Your task to perform on an android device: Open Maps and search for coffee Image 0: 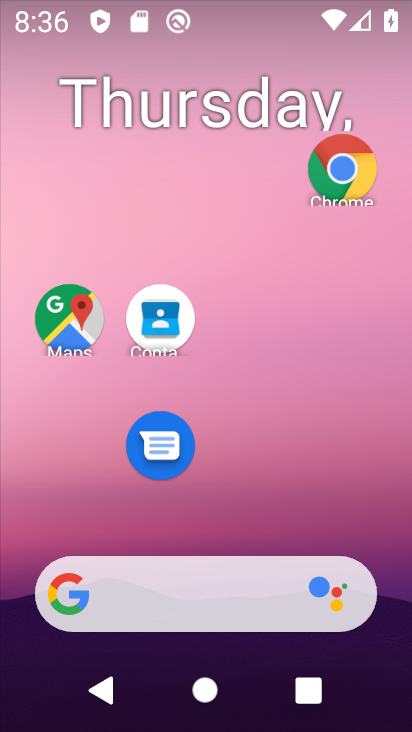
Step 0: drag from (278, 637) to (337, 118)
Your task to perform on an android device: Open Maps and search for coffee Image 1: 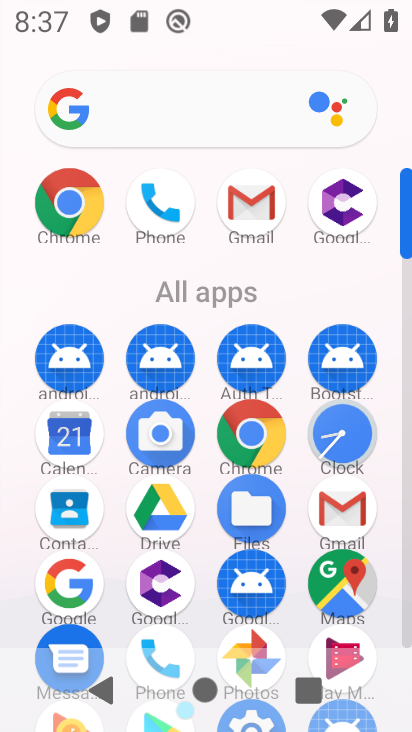
Step 1: click (329, 573)
Your task to perform on an android device: Open Maps and search for coffee Image 2: 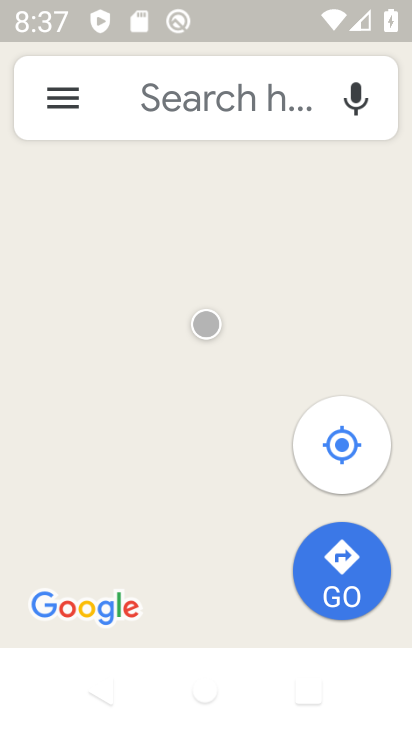
Step 2: click (245, 119)
Your task to perform on an android device: Open Maps and search for coffee Image 3: 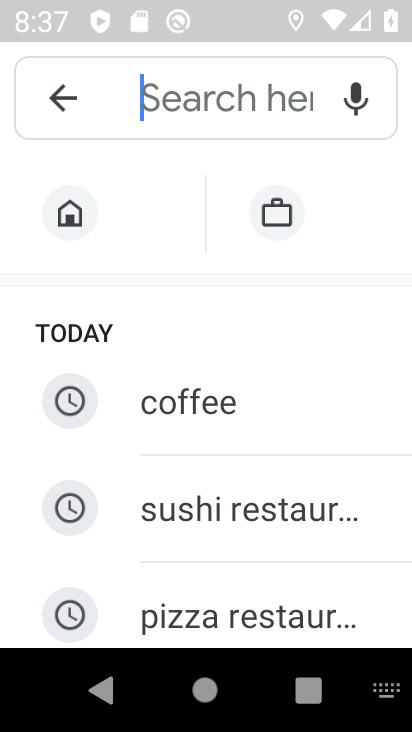
Step 3: click (161, 427)
Your task to perform on an android device: Open Maps and search for coffee Image 4: 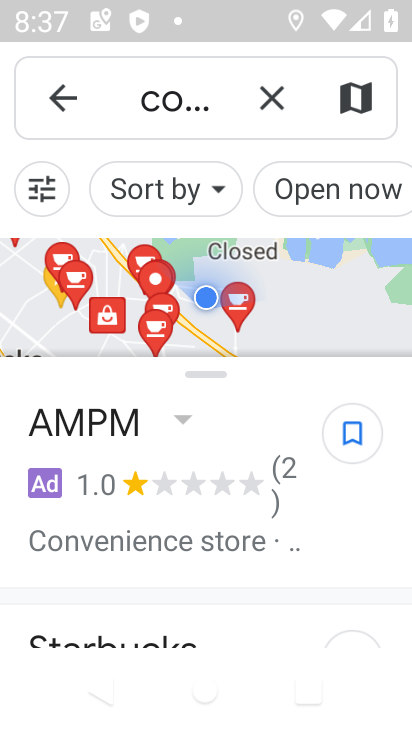
Step 4: click (210, 266)
Your task to perform on an android device: Open Maps and search for coffee Image 5: 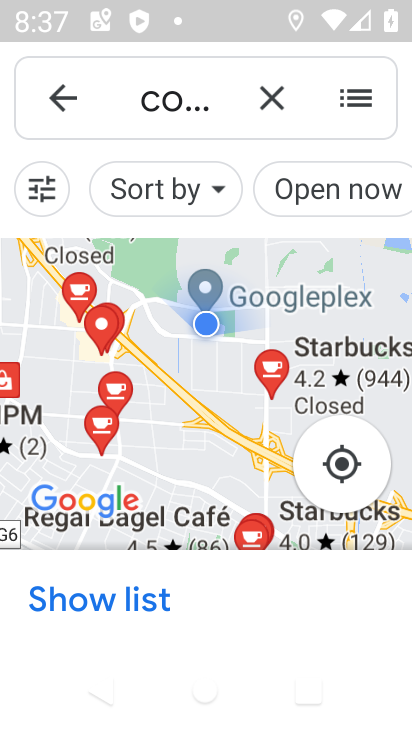
Step 5: task complete